Your task to perform on an android device: turn smart compose on in the gmail app Image 0: 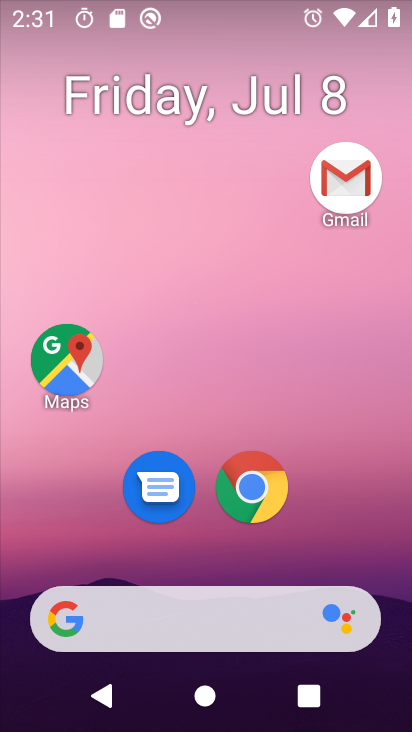
Step 0: drag from (346, 551) to (349, 163)
Your task to perform on an android device: turn smart compose on in the gmail app Image 1: 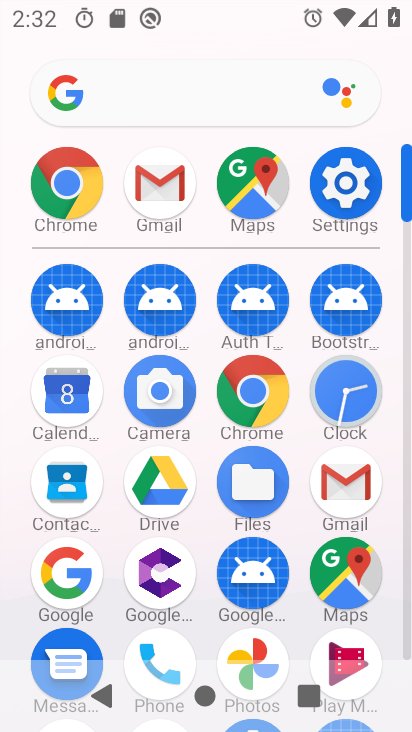
Step 1: click (361, 488)
Your task to perform on an android device: turn smart compose on in the gmail app Image 2: 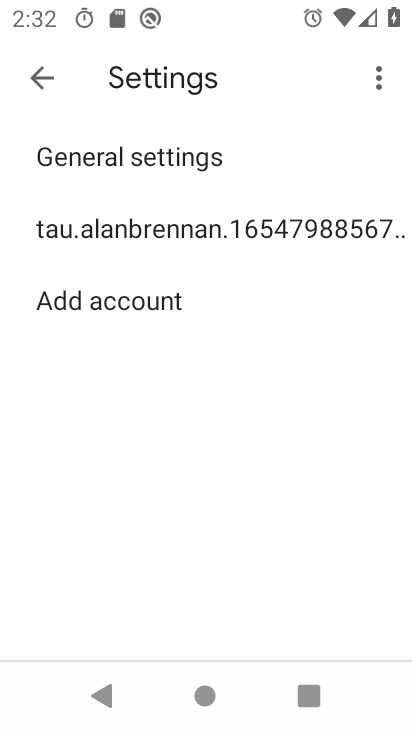
Step 2: click (223, 238)
Your task to perform on an android device: turn smart compose on in the gmail app Image 3: 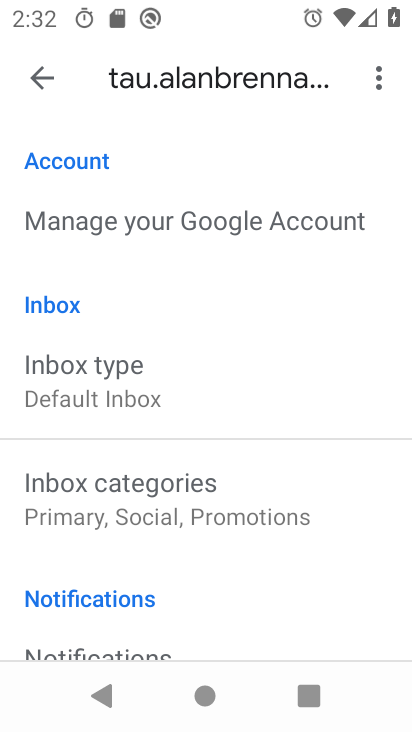
Step 3: task complete